Your task to perform on an android device: turn on wifi Image 0: 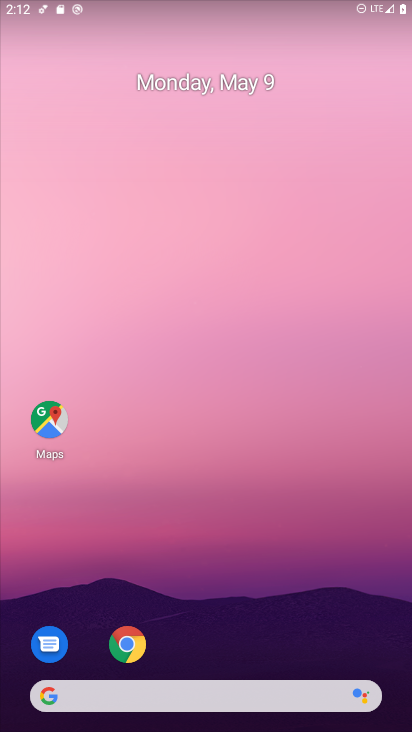
Step 0: drag from (172, 619) to (142, 145)
Your task to perform on an android device: turn on wifi Image 1: 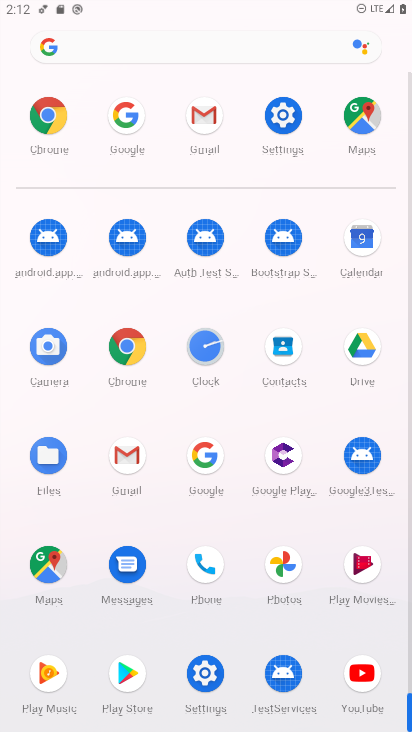
Step 1: click (281, 125)
Your task to perform on an android device: turn on wifi Image 2: 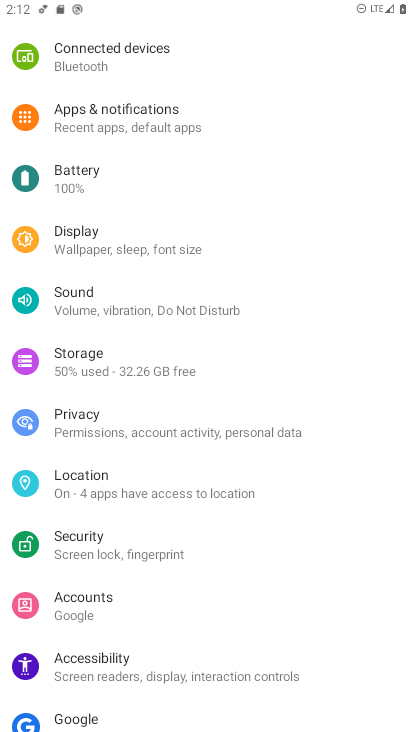
Step 2: drag from (216, 113) to (195, 730)
Your task to perform on an android device: turn on wifi Image 3: 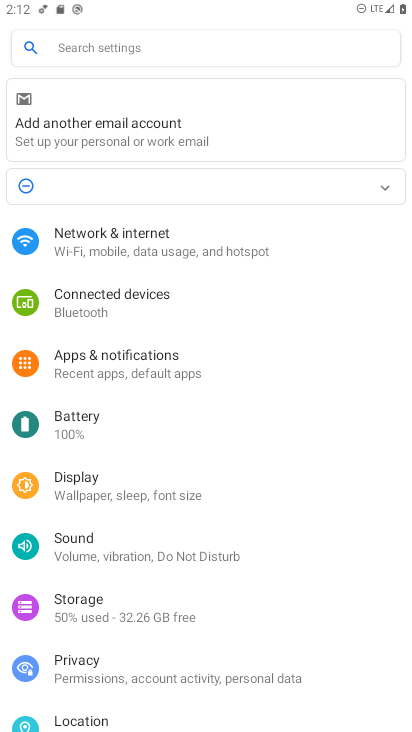
Step 3: click (160, 247)
Your task to perform on an android device: turn on wifi Image 4: 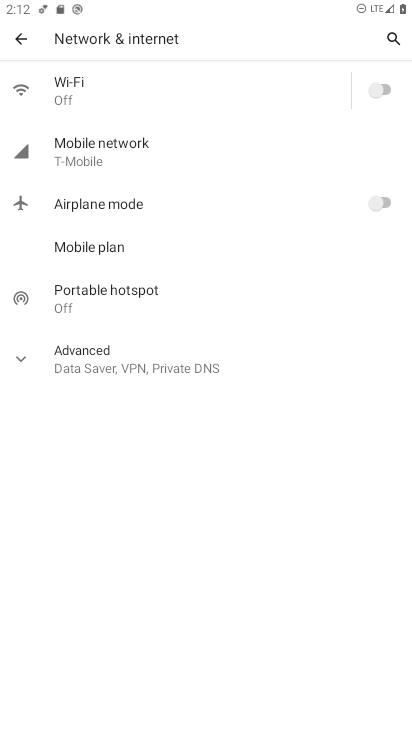
Step 4: click (392, 92)
Your task to perform on an android device: turn on wifi Image 5: 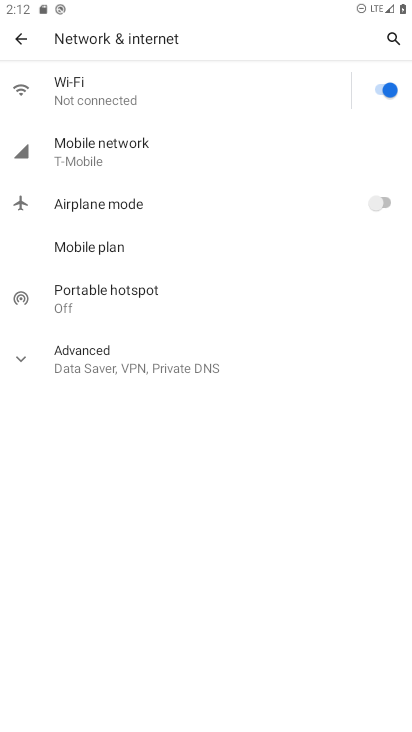
Step 5: task complete